Your task to perform on an android device: check the backup settings in the google photos Image 0: 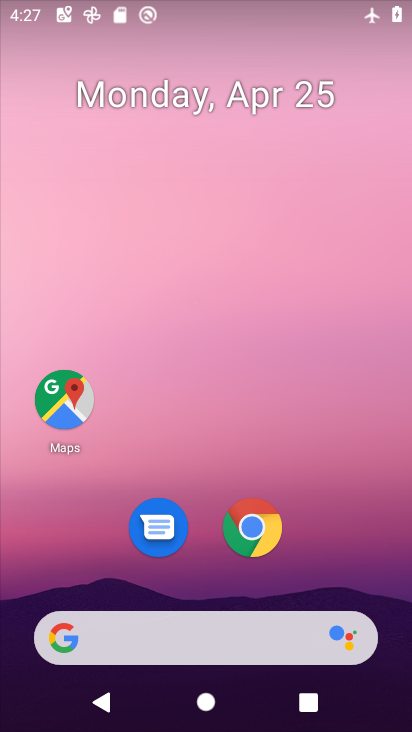
Step 0: drag from (373, 567) to (374, 54)
Your task to perform on an android device: check the backup settings in the google photos Image 1: 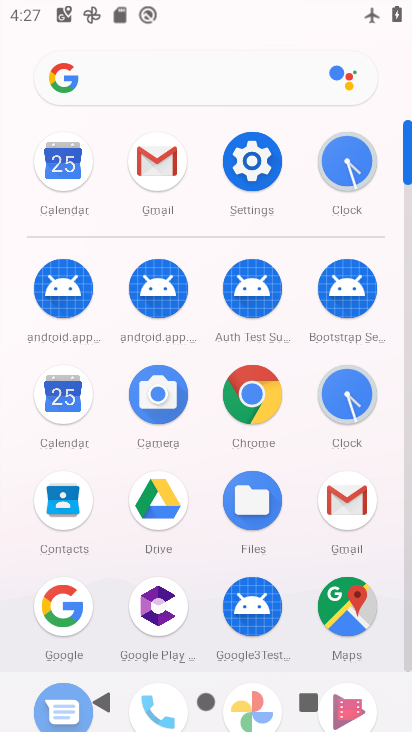
Step 1: click (404, 655)
Your task to perform on an android device: check the backup settings in the google photos Image 2: 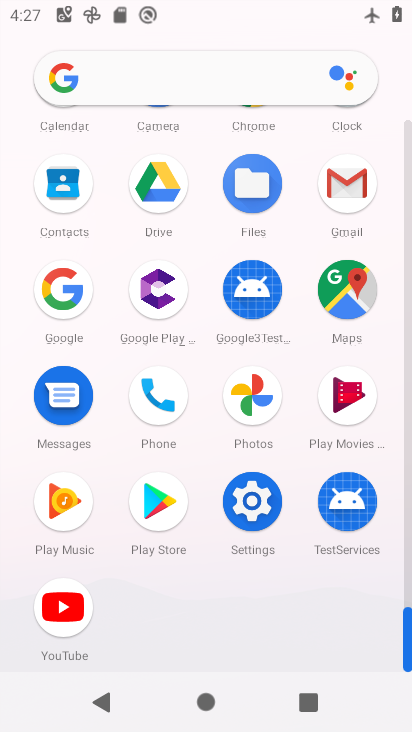
Step 2: click (248, 395)
Your task to perform on an android device: check the backup settings in the google photos Image 3: 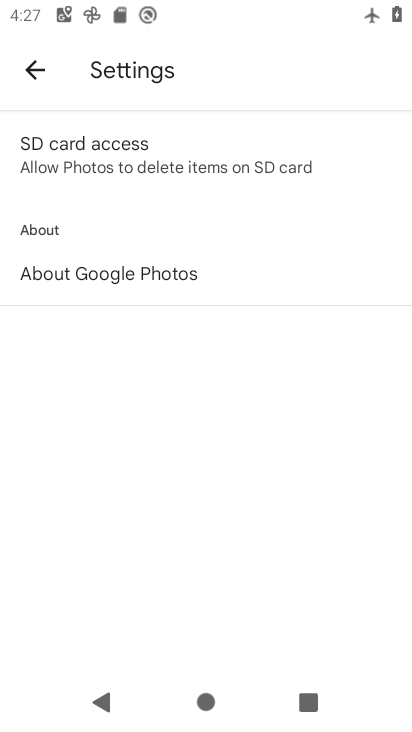
Step 3: press home button
Your task to perform on an android device: check the backup settings in the google photos Image 4: 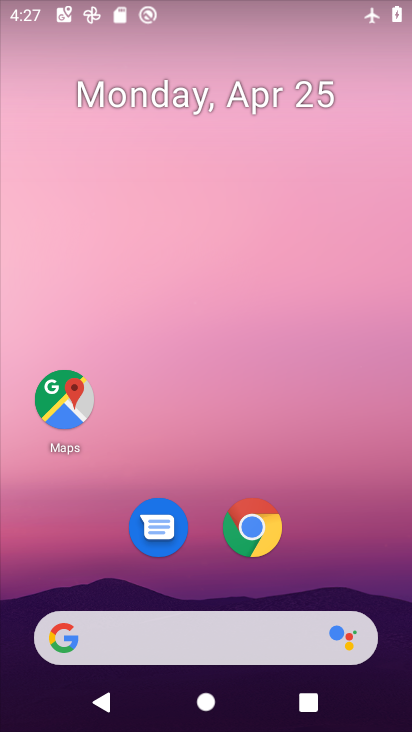
Step 4: drag from (380, 604) to (330, 118)
Your task to perform on an android device: check the backup settings in the google photos Image 5: 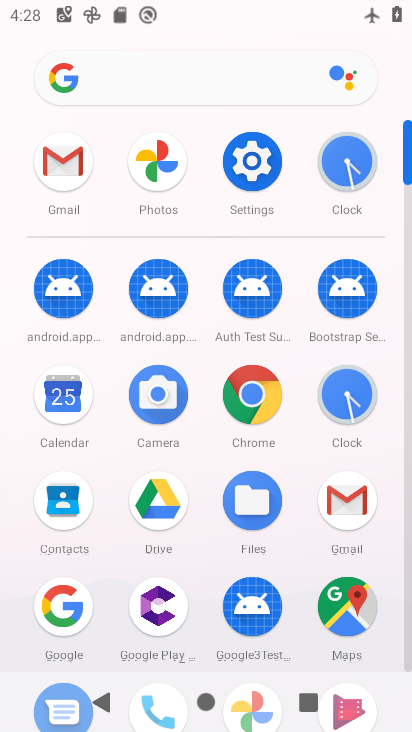
Step 5: click (406, 652)
Your task to perform on an android device: check the backup settings in the google photos Image 6: 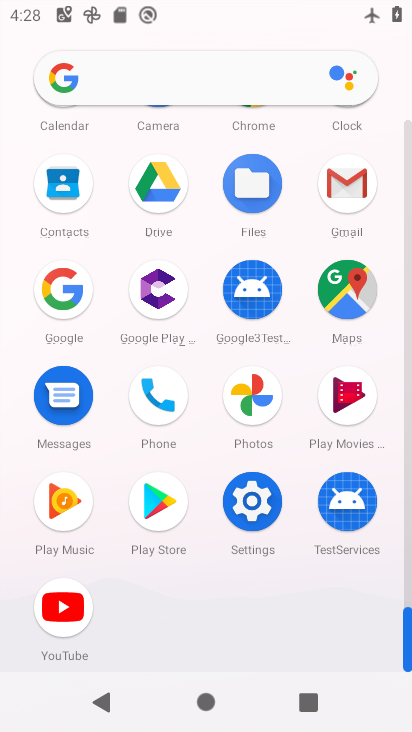
Step 6: click (249, 396)
Your task to perform on an android device: check the backup settings in the google photos Image 7: 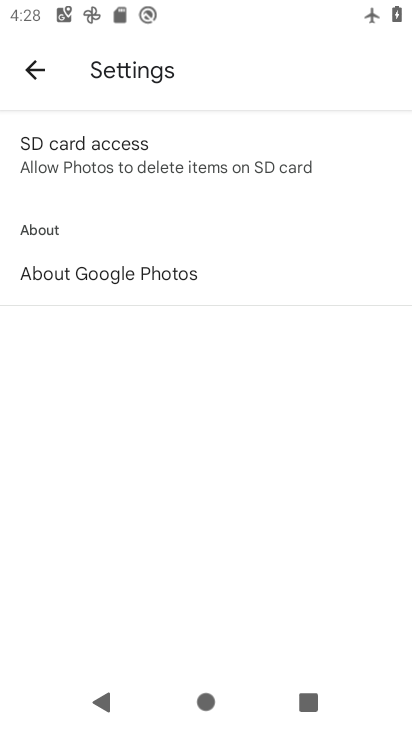
Step 7: press back button
Your task to perform on an android device: check the backup settings in the google photos Image 8: 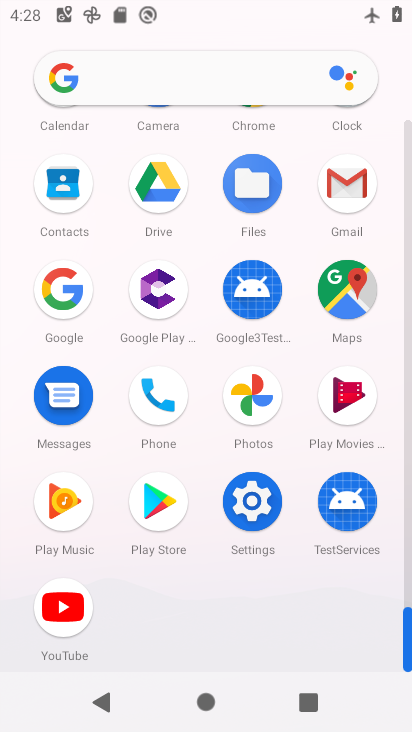
Step 8: click (247, 392)
Your task to perform on an android device: check the backup settings in the google photos Image 9: 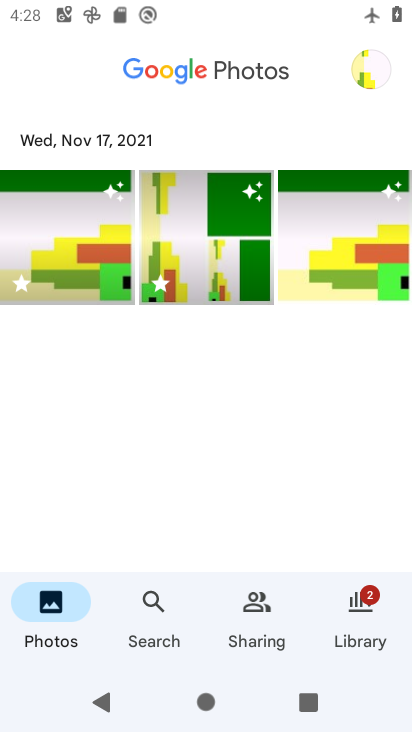
Step 9: click (380, 74)
Your task to perform on an android device: check the backup settings in the google photos Image 10: 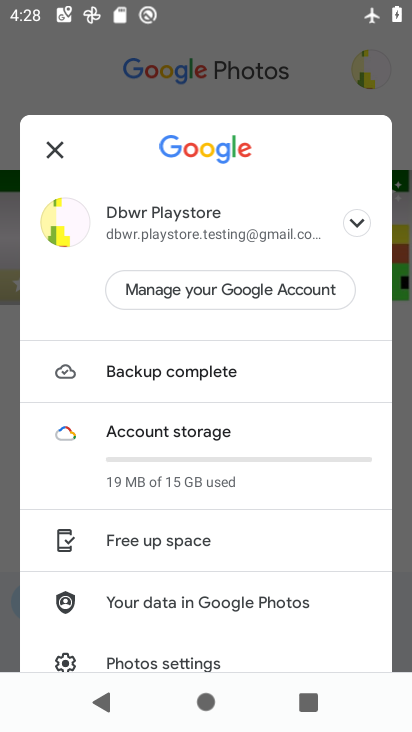
Step 10: drag from (323, 630) to (314, 303)
Your task to perform on an android device: check the backup settings in the google photos Image 11: 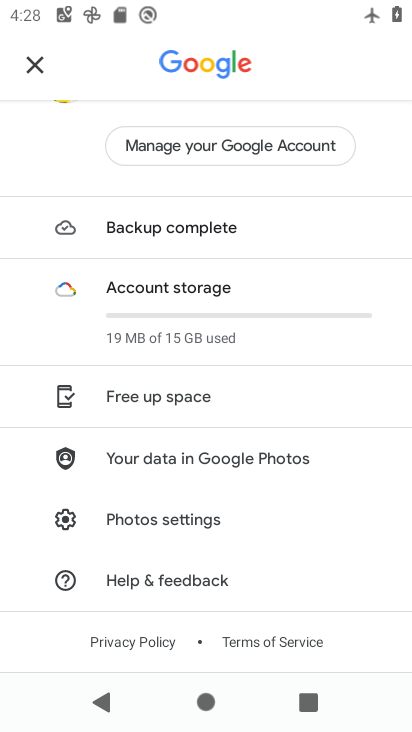
Step 11: click (137, 509)
Your task to perform on an android device: check the backup settings in the google photos Image 12: 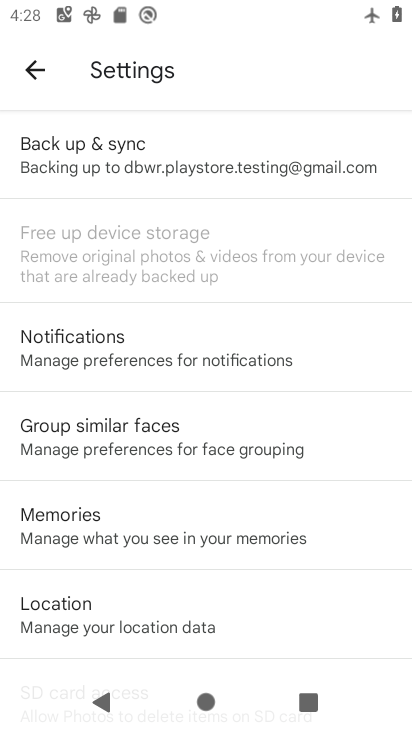
Step 12: click (131, 156)
Your task to perform on an android device: check the backup settings in the google photos Image 13: 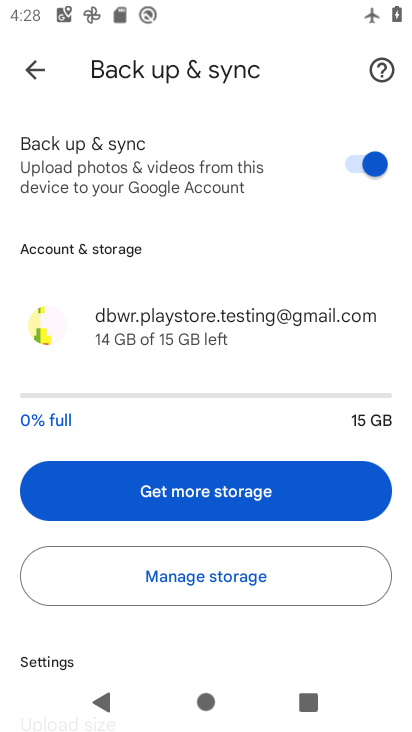
Step 13: task complete